Your task to perform on an android device: Open Google Image 0: 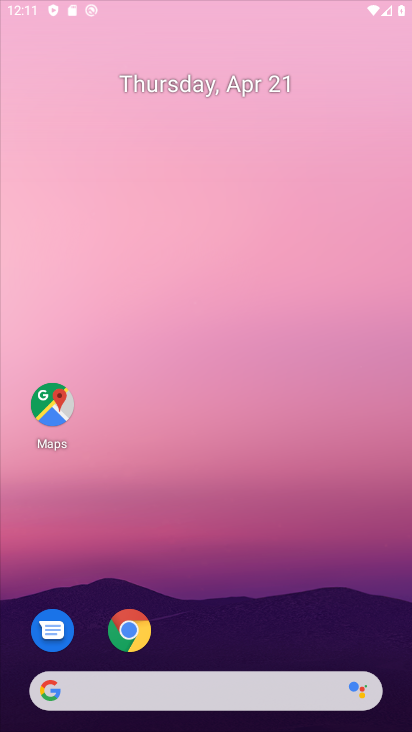
Step 0: drag from (257, 579) to (269, 111)
Your task to perform on an android device: Open Google Image 1: 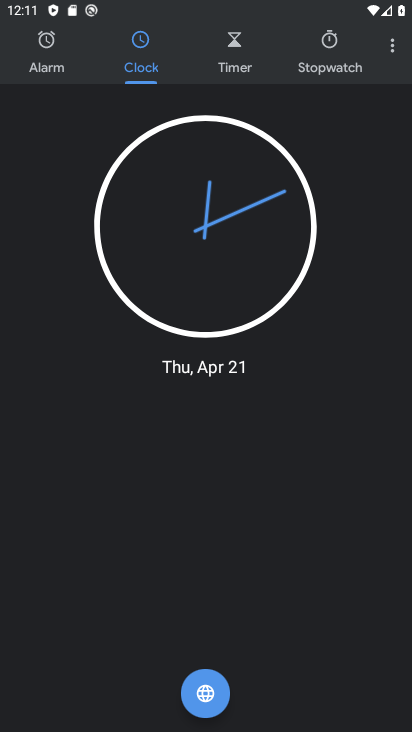
Step 1: press home button
Your task to perform on an android device: Open Google Image 2: 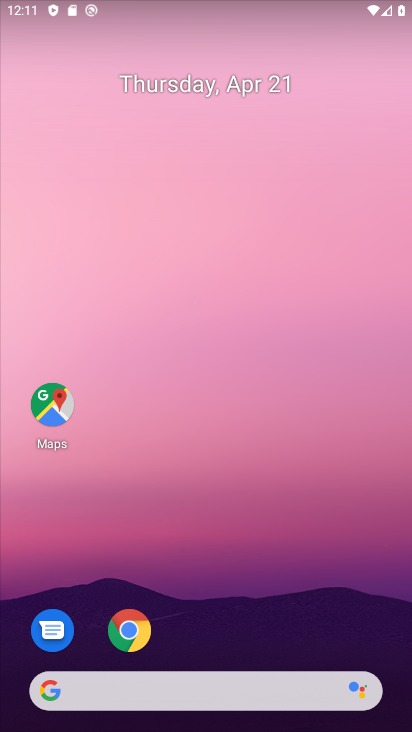
Step 2: drag from (282, 592) to (210, 2)
Your task to perform on an android device: Open Google Image 3: 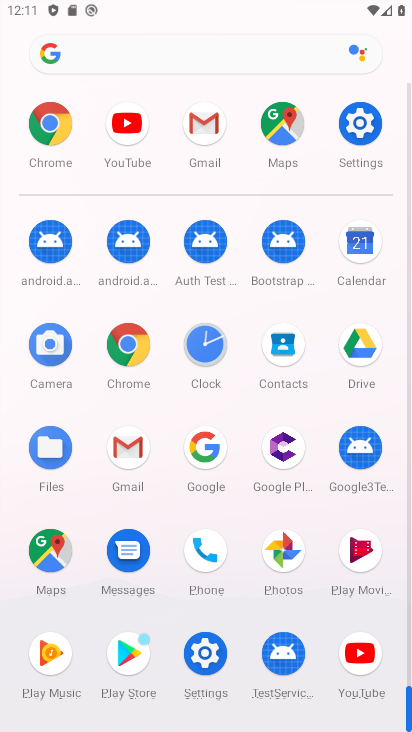
Step 3: click (194, 455)
Your task to perform on an android device: Open Google Image 4: 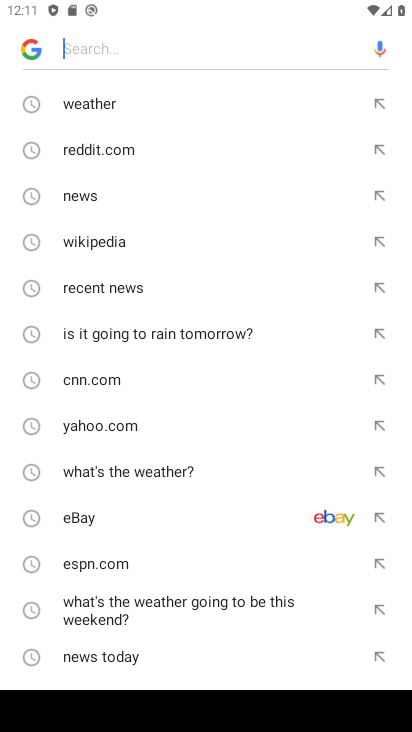
Step 4: task complete